Your task to perform on an android device: Open the phone app and click the voicemail tab. Image 0: 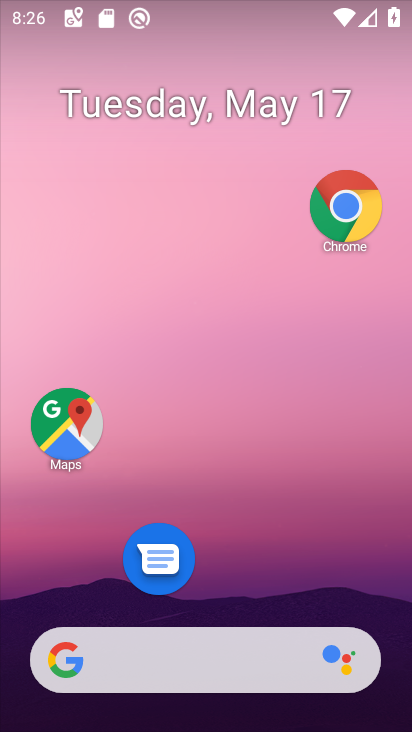
Step 0: drag from (236, 660) to (241, 277)
Your task to perform on an android device: Open the phone app and click the voicemail tab. Image 1: 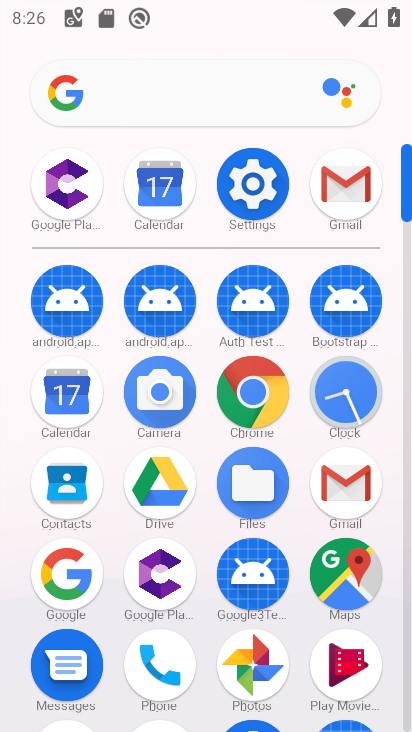
Step 1: click (169, 654)
Your task to perform on an android device: Open the phone app and click the voicemail tab. Image 2: 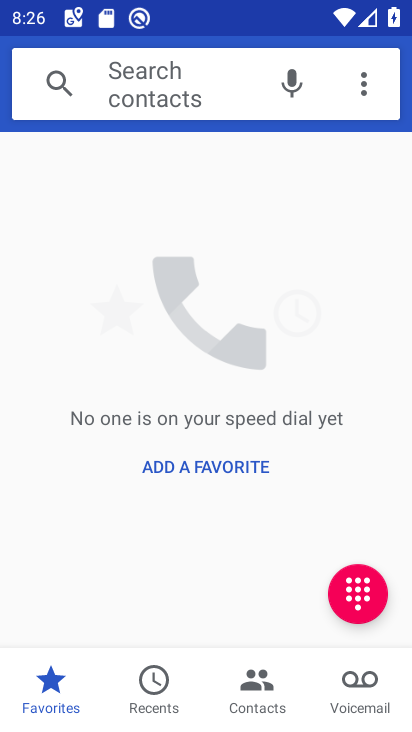
Step 2: click (371, 713)
Your task to perform on an android device: Open the phone app and click the voicemail tab. Image 3: 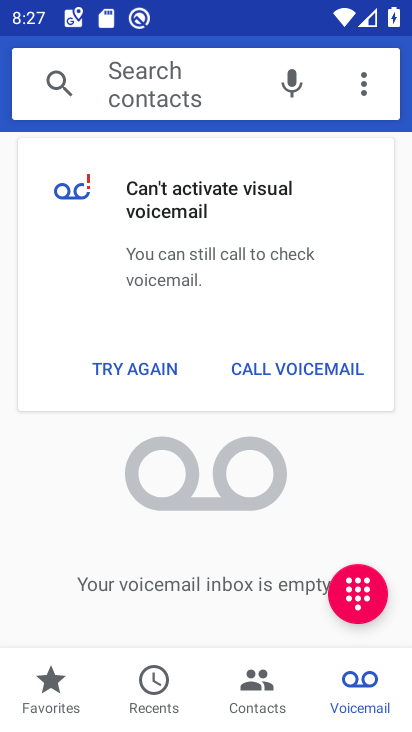
Step 3: task complete